Your task to perform on an android device: Play the latest video from the New York Times Image 0: 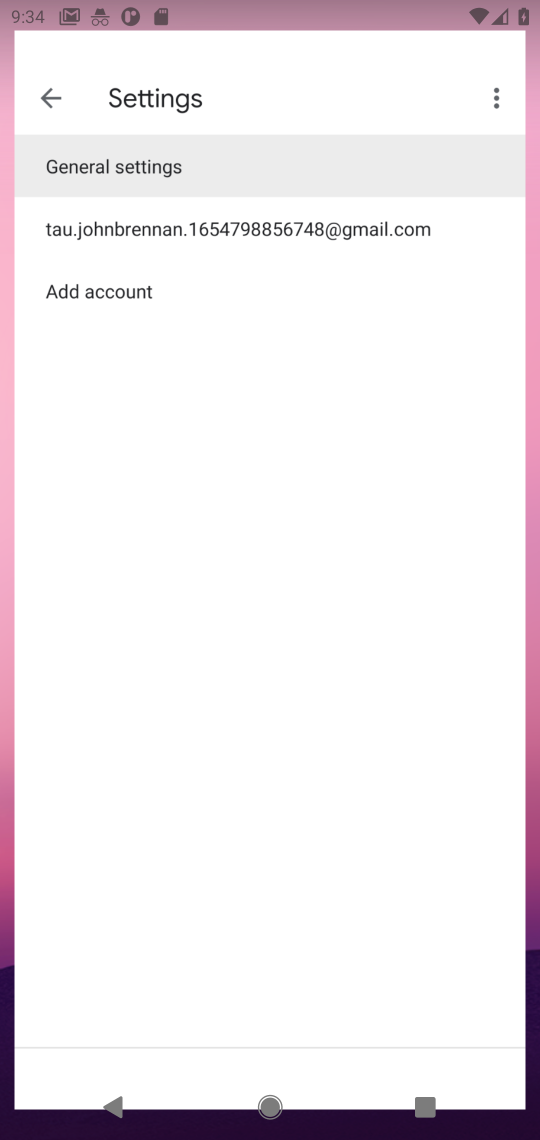
Step 0: press home button
Your task to perform on an android device: Play the latest video from the New York Times Image 1: 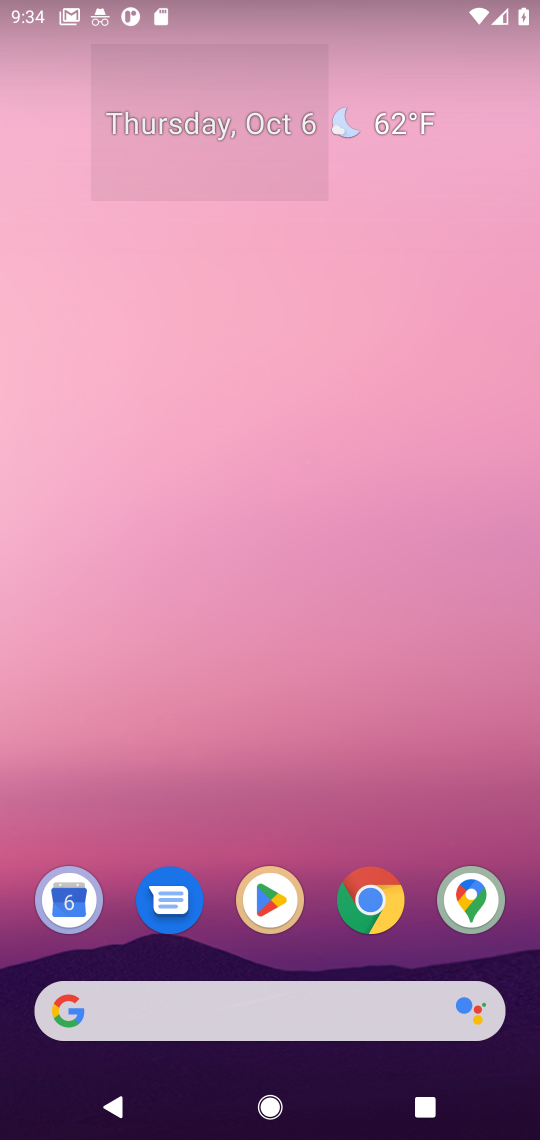
Step 1: drag from (424, 718) to (389, 61)
Your task to perform on an android device: Play the latest video from the New York Times Image 2: 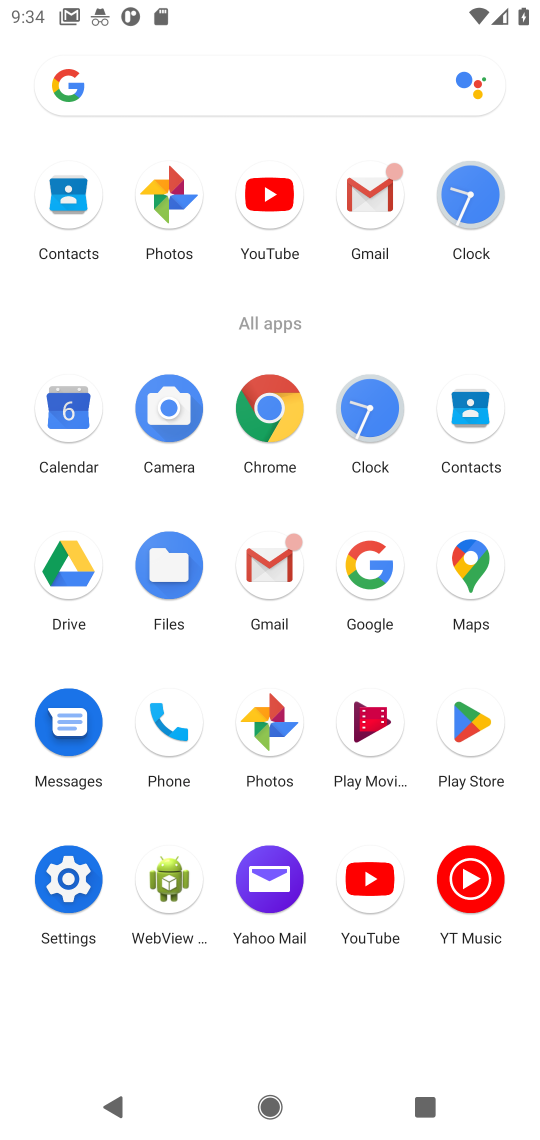
Step 2: click (273, 205)
Your task to perform on an android device: Play the latest video from the New York Times Image 3: 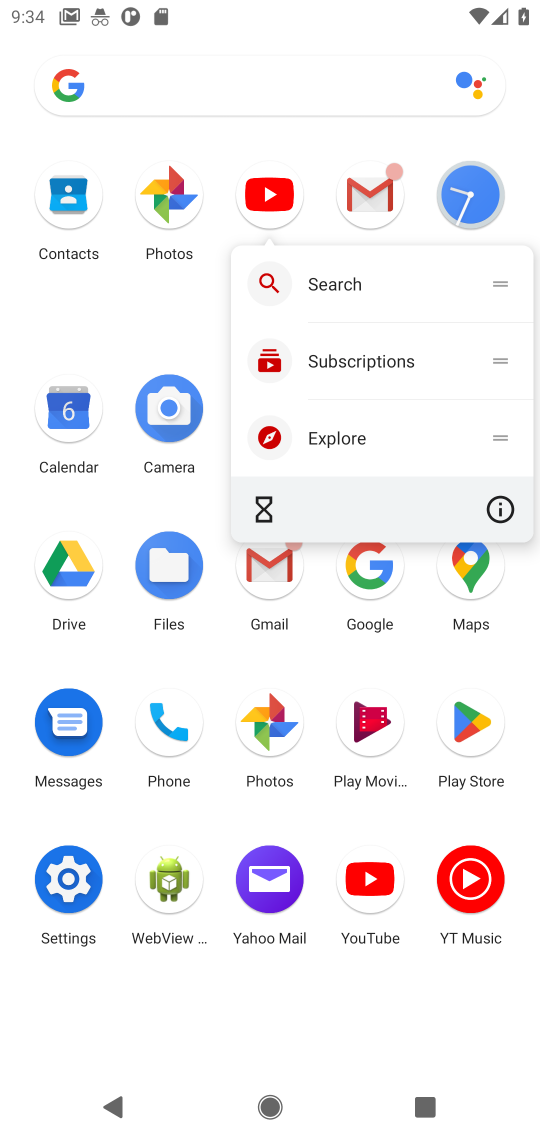
Step 3: click (274, 186)
Your task to perform on an android device: Play the latest video from the New York Times Image 4: 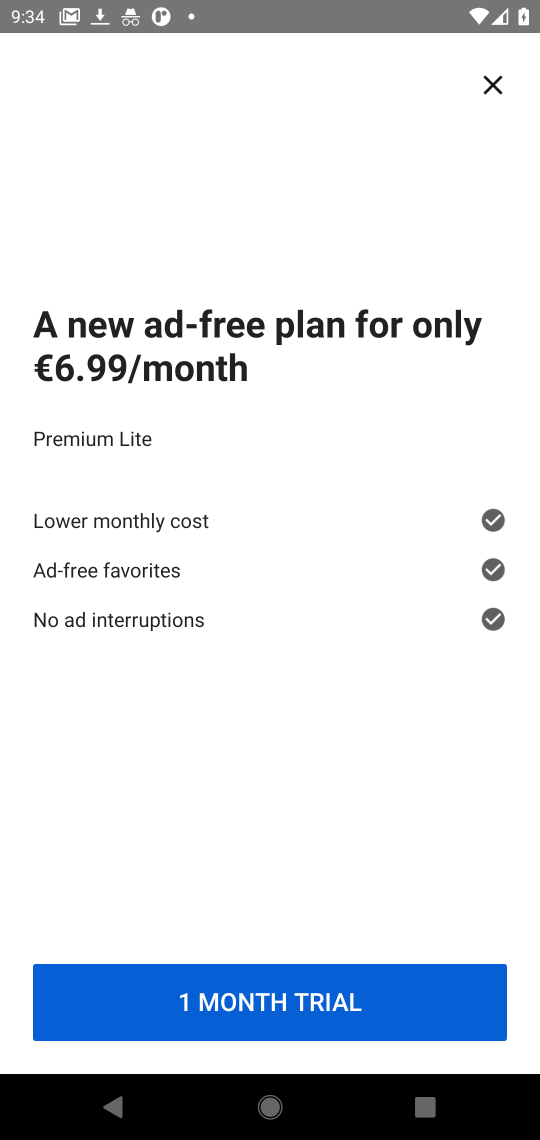
Step 4: click (432, 60)
Your task to perform on an android device: Play the latest video from the New York Times Image 5: 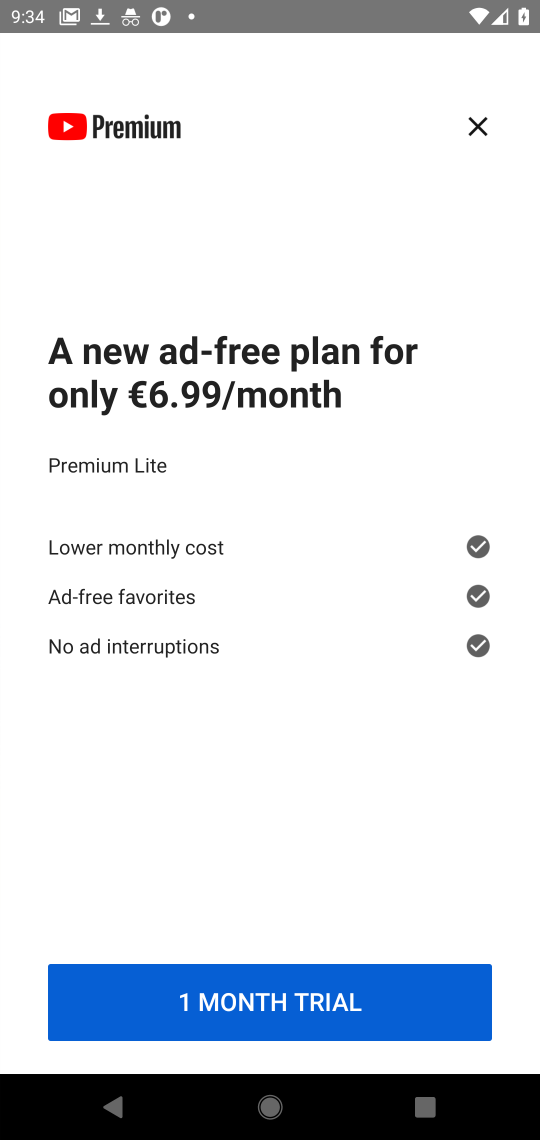
Step 5: click (476, 118)
Your task to perform on an android device: Play the latest video from the New York Times Image 6: 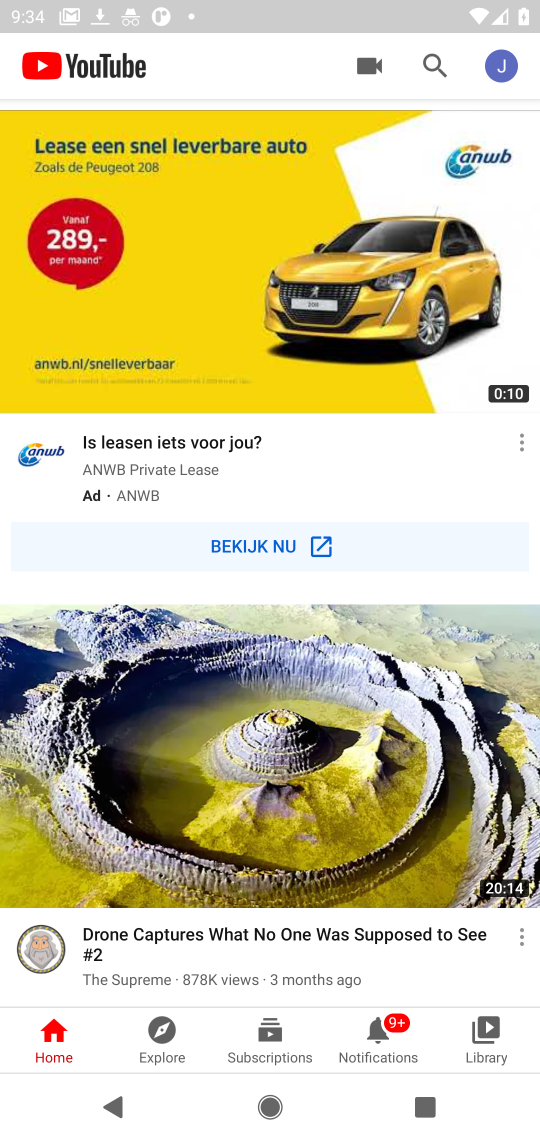
Step 6: click (429, 62)
Your task to perform on an android device: Play the latest video from the New York Times Image 7: 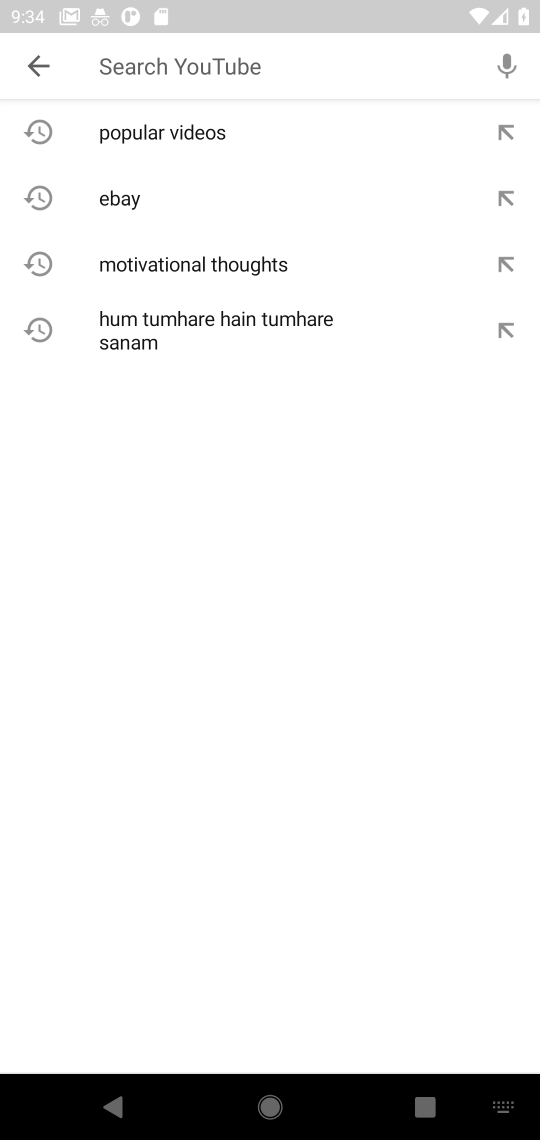
Step 7: type "Play the latest video from the New York Times"
Your task to perform on an android device: Play the latest video from the New York Times Image 8: 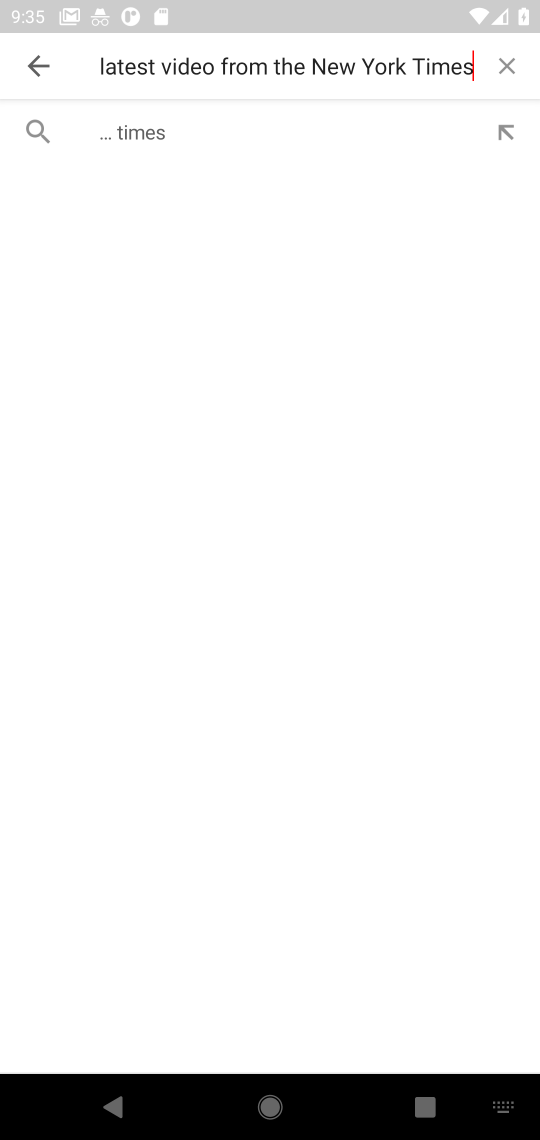
Step 8: press enter
Your task to perform on an android device: Play the latest video from the New York Times Image 9: 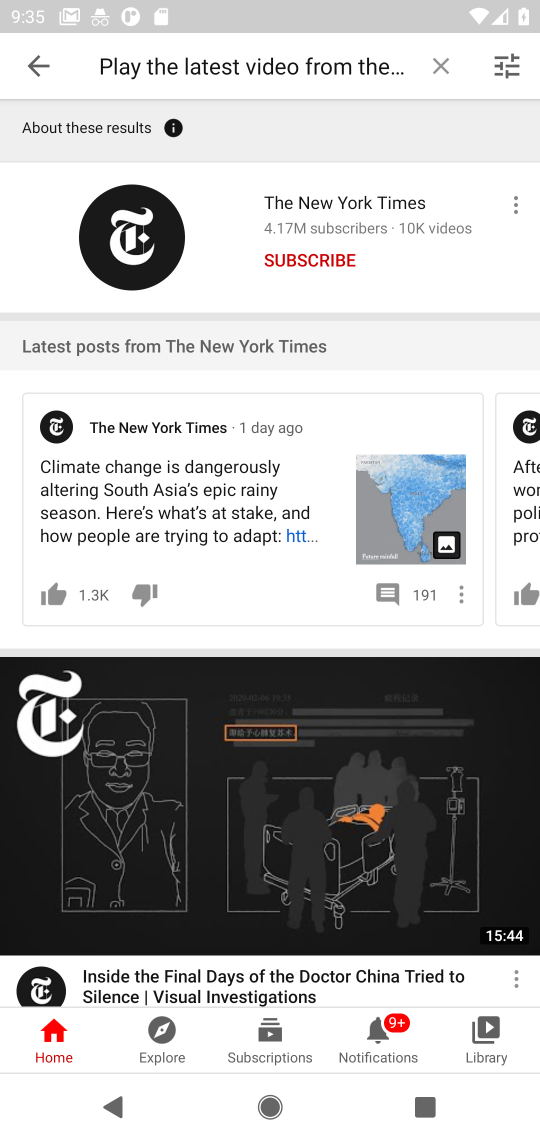
Step 9: drag from (320, 824) to (340, 371)
Your task to perform on an android device: Play the latest video from the New York Times Image 10: 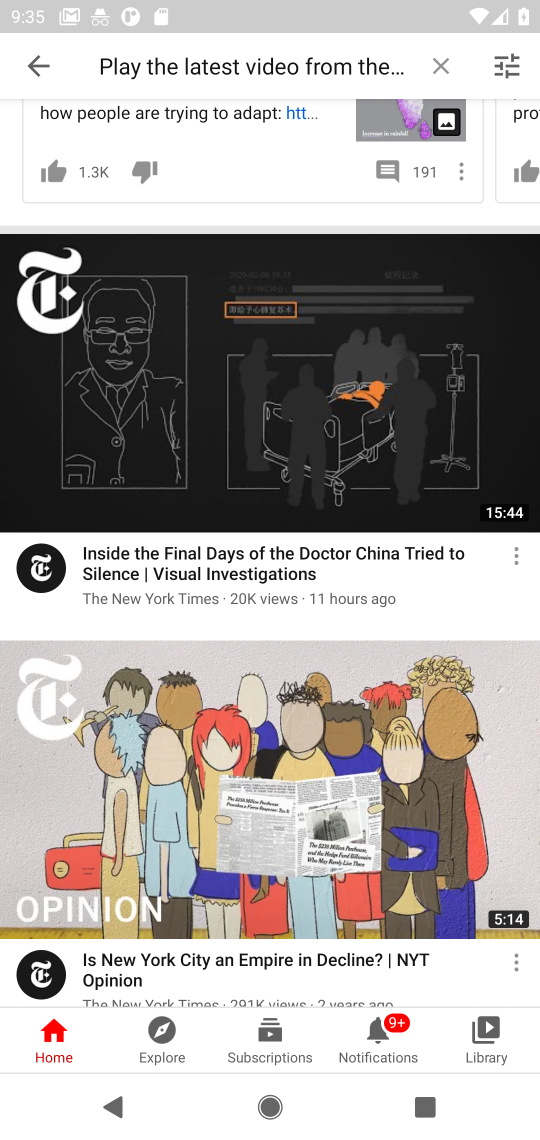
Step 10: drag from (314, 669) to (301, 282)
Your task to perform on an android device: Play the latest video from the New York Times Image 11: 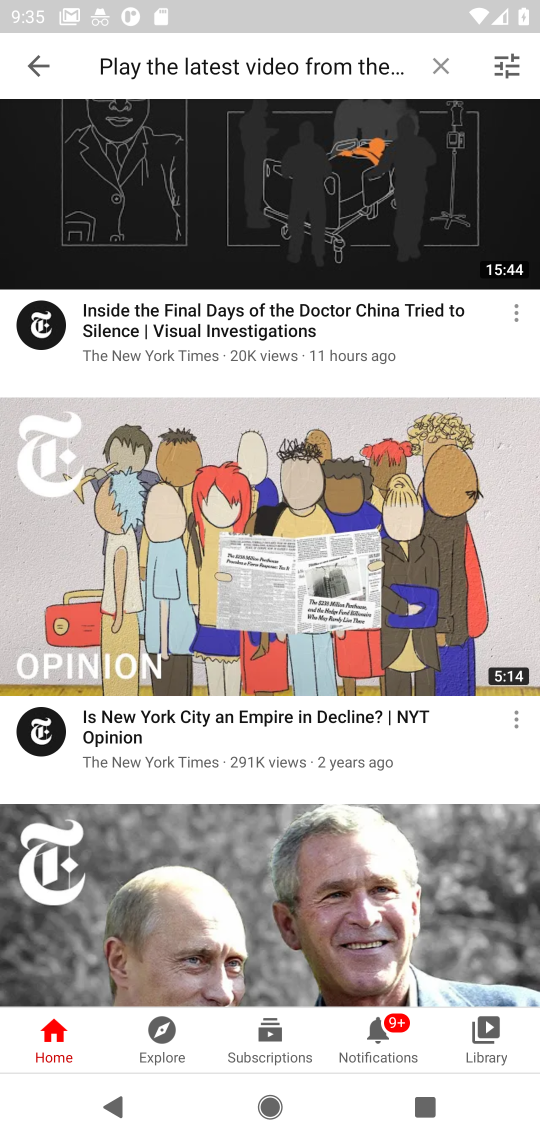
Step 11: drag from (301, 789) to (299, 488)
Your task to perform on an android device: Play the latest video from the New York Times Image 12: 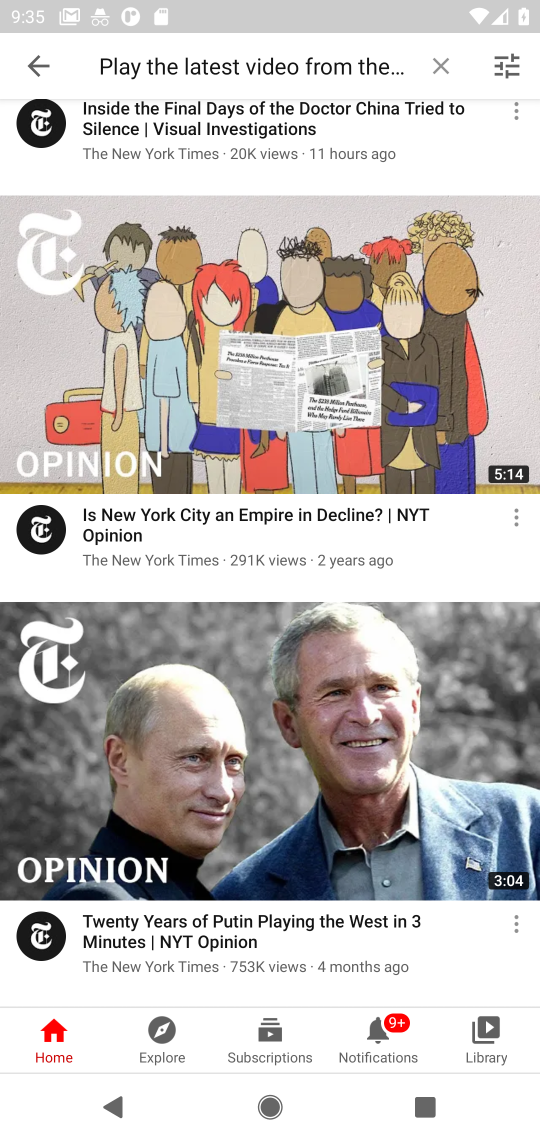
Step 12: click (319, 353)
Your task to perform on an android device: Play the latest video from the New York Times Image 13: 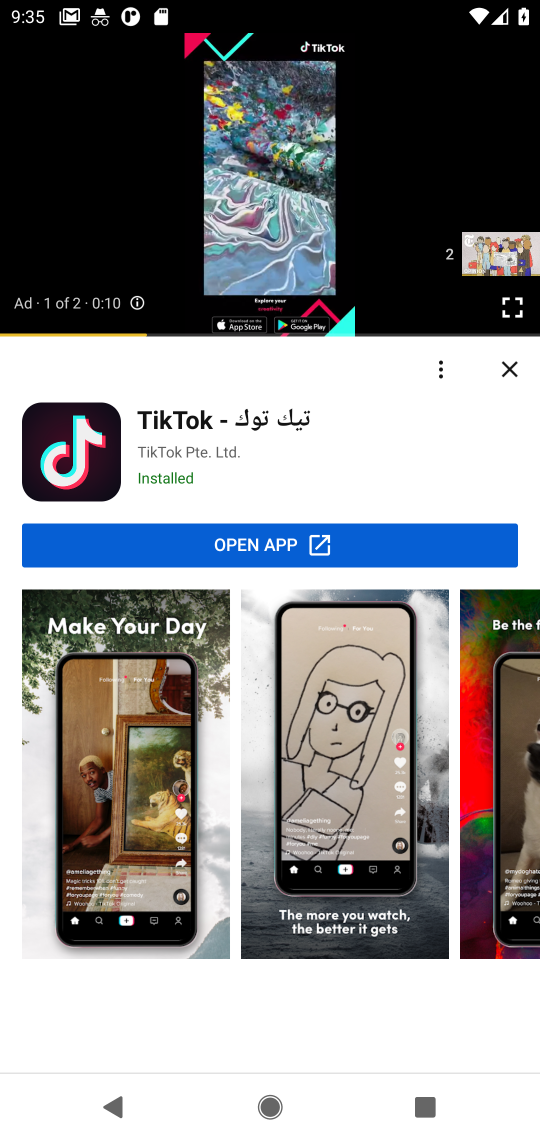
Step 13: click (504, 361)
Your task to perform on an android device: Play the latest video from the New York Times Image 14: 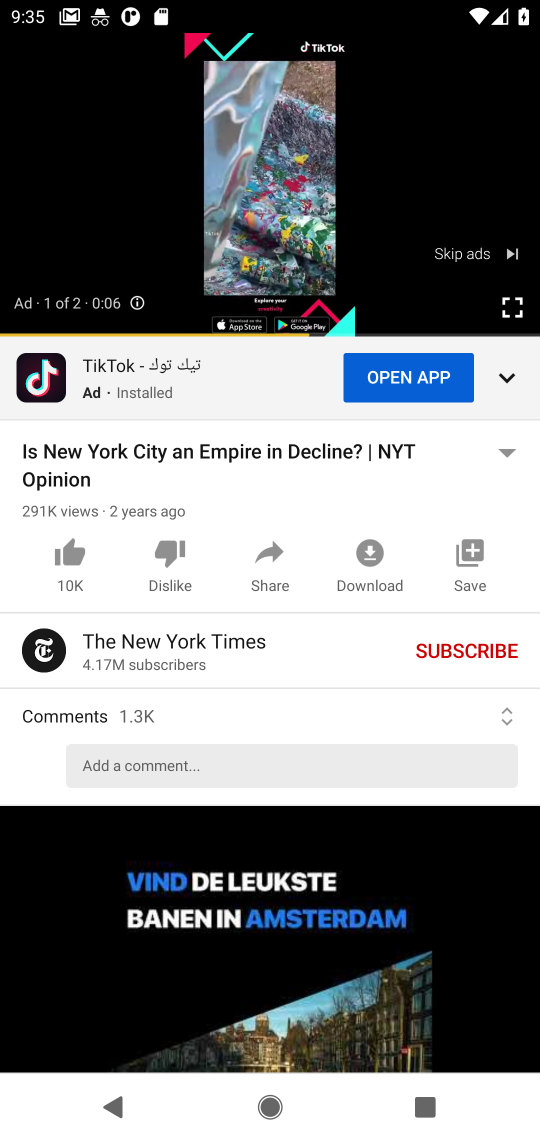
Step 14: click (485, 257)
Your task to perform on an android device: Play the latest video from the New York Times Image 15: 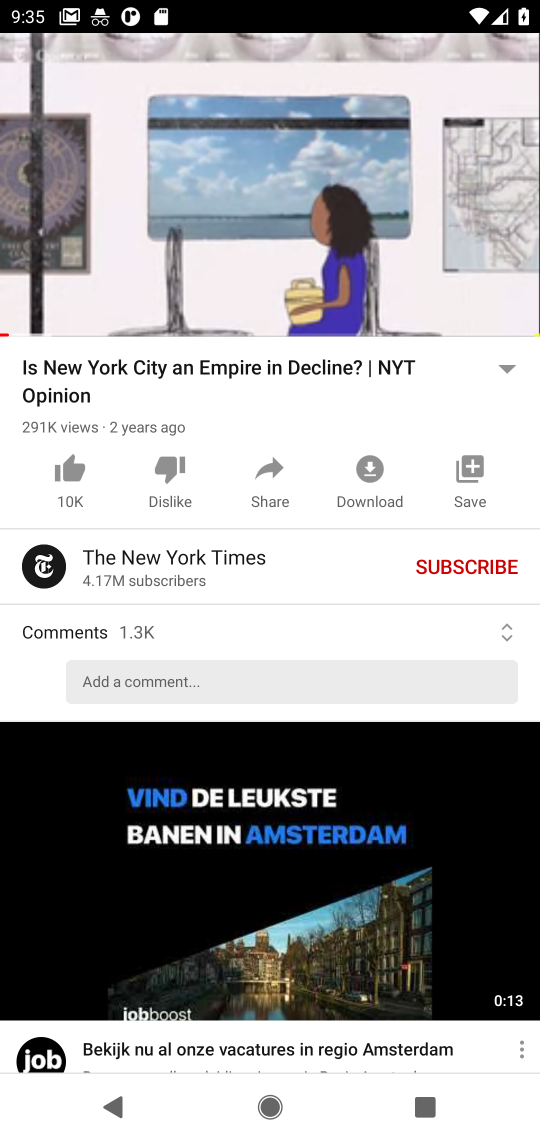
Step 15: task complete